Your task to perform on an android device: turn on improve location accuracy Image 0: 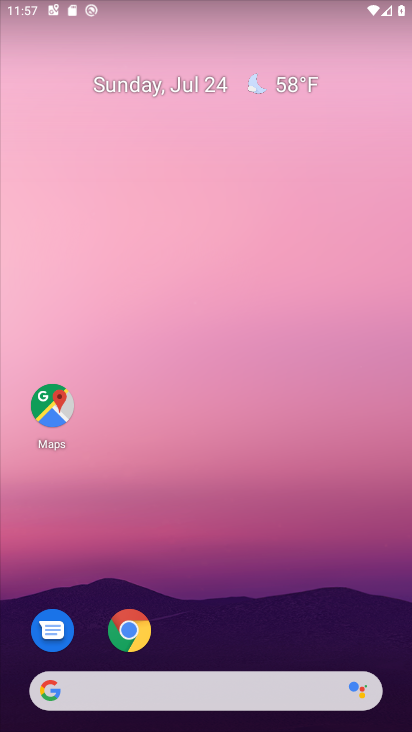
Step 0: drag from (180, 550) to (149, 253)
Your task to perform on an android device: turn on improve location accuracy Image 1: 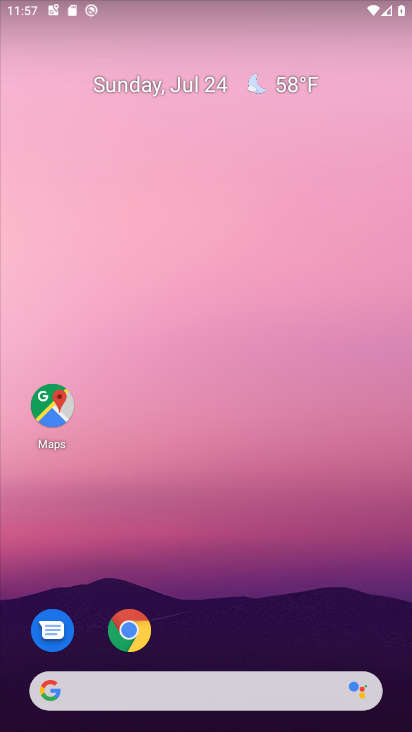
Step 1: drag from (181, 502) to (168, 191)
Your task to perform on an android device: turn on improve location accuracy Image 2: 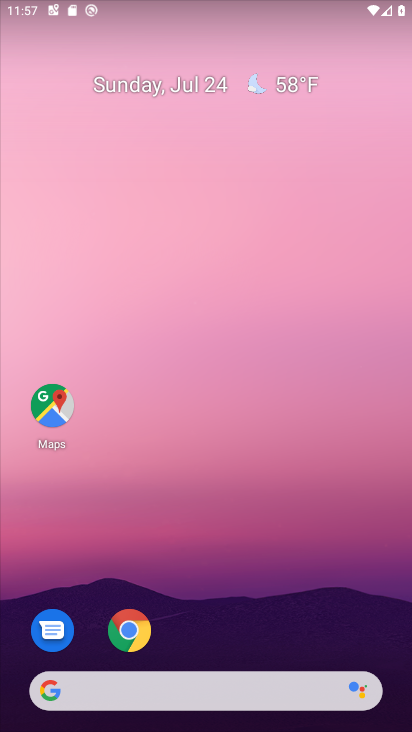
Step 2: drag from (188, 346) to (198, 90)
Your task to perform on an android device: turn on improve location accuracy Image 3: 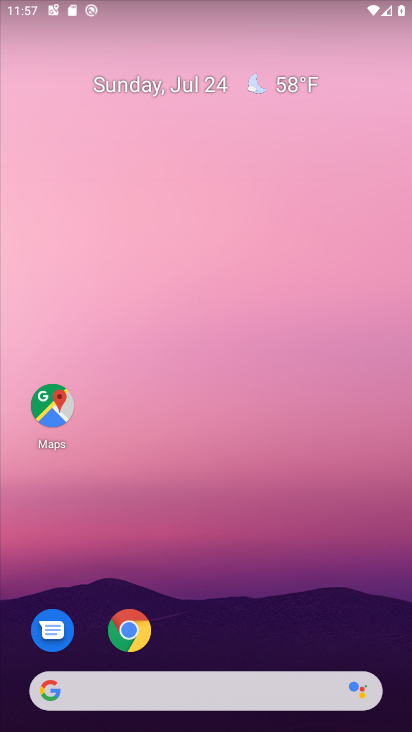
Step 3: drag from (157, 292) to (157, 125)
Your task to perform on an android device: turn on improve location accuracy Image 4: 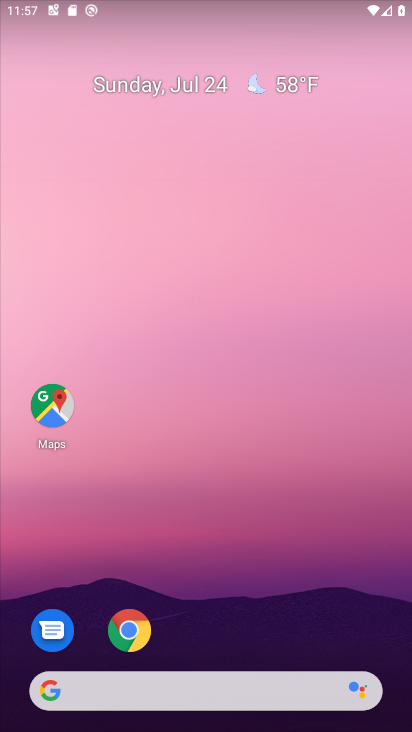
Step 4: drag from (200, 564) to (198, 116)
Your task to perform on an android device: turn on improve location accuracy Image 5: 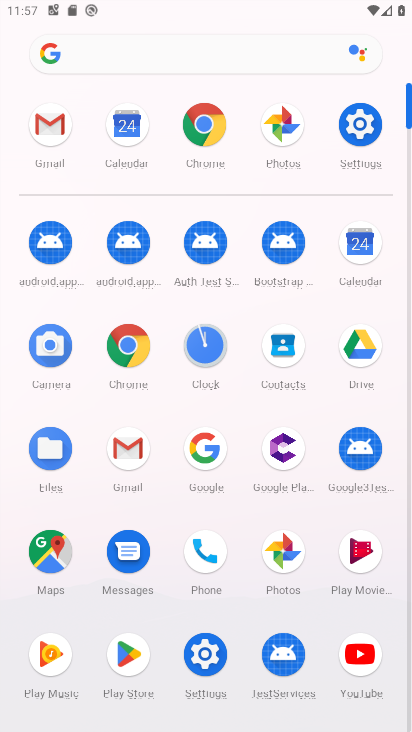
Step 5: click (353, 125)
Your task to perform on an android device: turn on improve location accuracy Image 6: 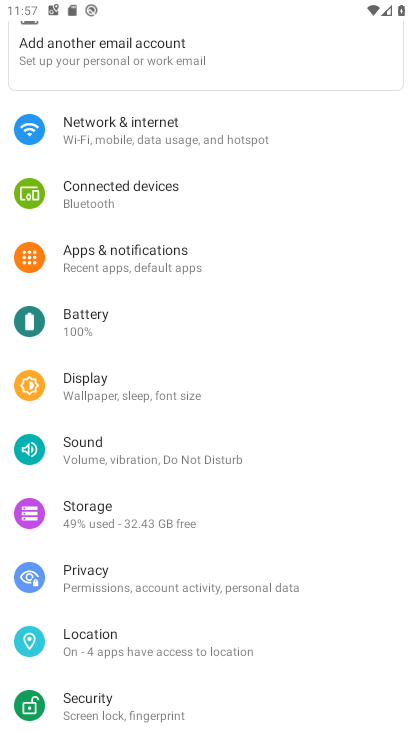
Step 6: click (92, 637)
Your task to perform on an android device: turn on improve location accuracy Image 7: 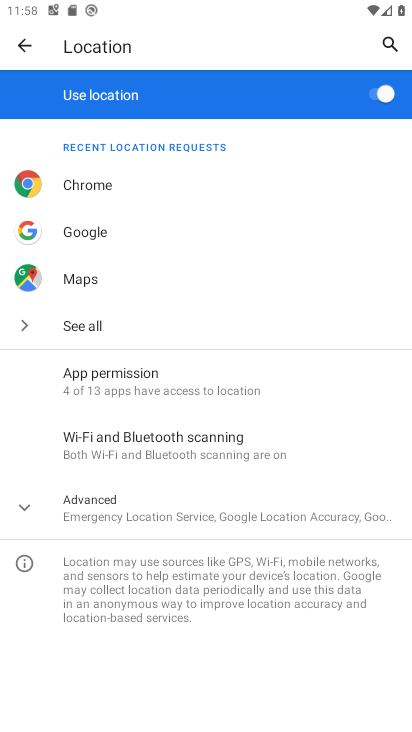
Step 7: click (118, 527)
Your task to perform on an android device: turn on improve location accuracy Image 8: 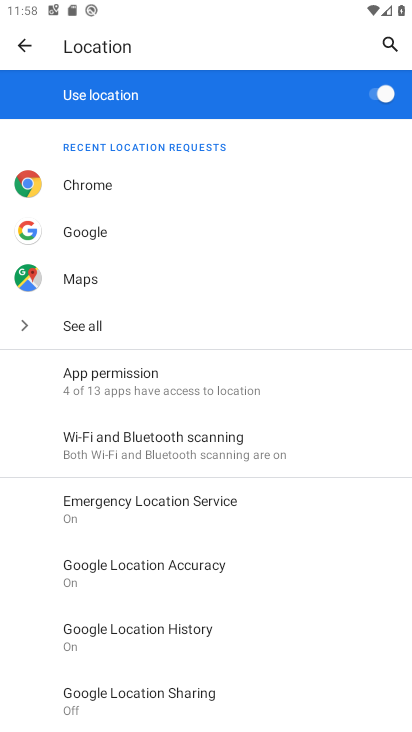
Step 8: click (153, 562)
Your task to perform on an android device: turn on improve location accuracy Image 9: 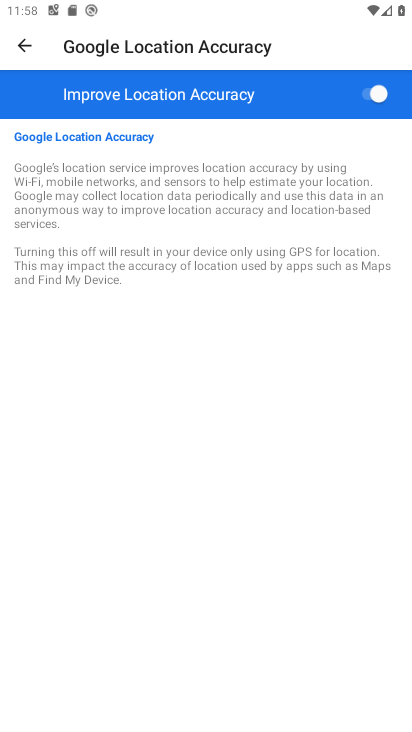
Step 9: task complete